Your task to perform on an android device: clear all cookies in the chrome app Image 0: 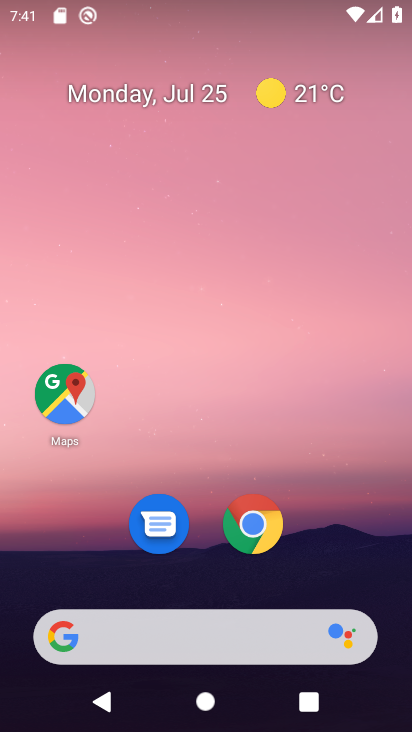
Step 0: click (253, 536)
Your task to perform on an android device: clear all cookies in the chrome app Image 1: 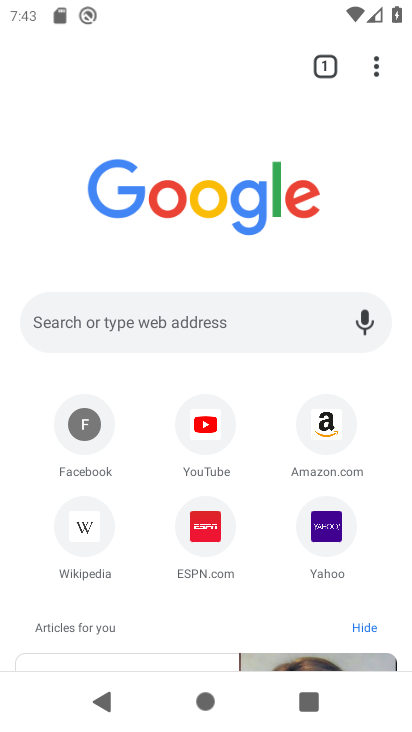
Step 1: click (374, 74)
Your task to perform on an android device: clear all cookies in the chrome app Image 2: 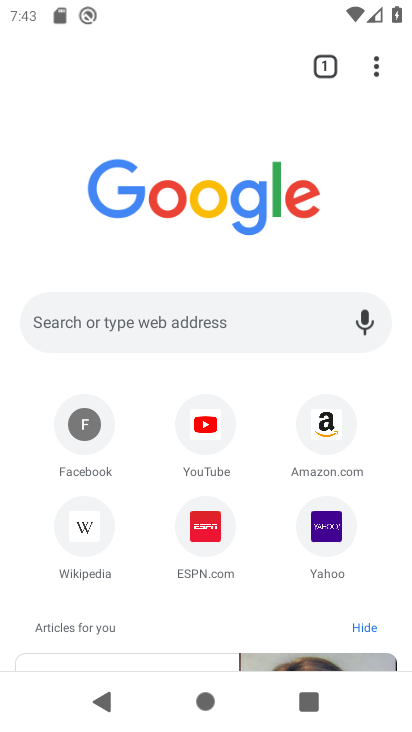
Step 2: click (377, 71)
Your task to perform on an android device: clear all cookies in the chrome app Image 3: 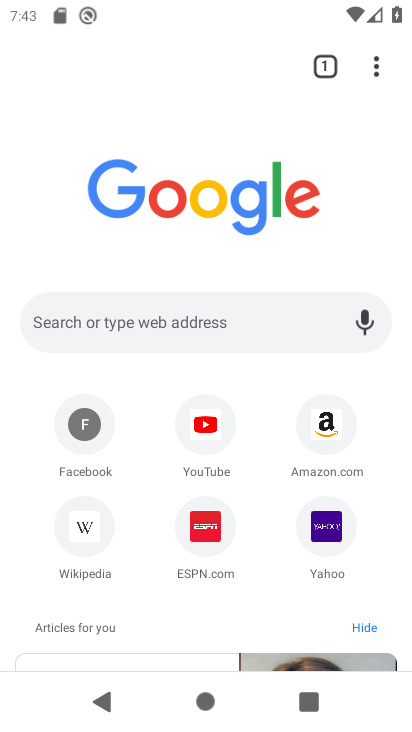
Step 3: drag from (374, 72) to (205, 563)
Your task to perform on an android device: clear all cookies in the chrome app Image 4: 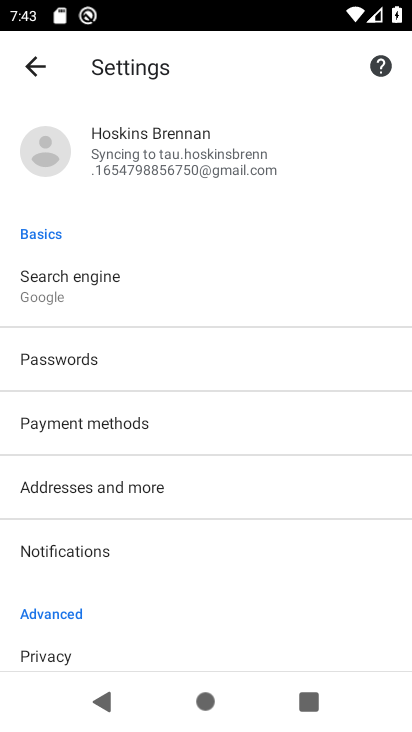
Step 4: click (52, 654)
Your task to perform on an android device: clear all cookies in the chrome app Image 5: 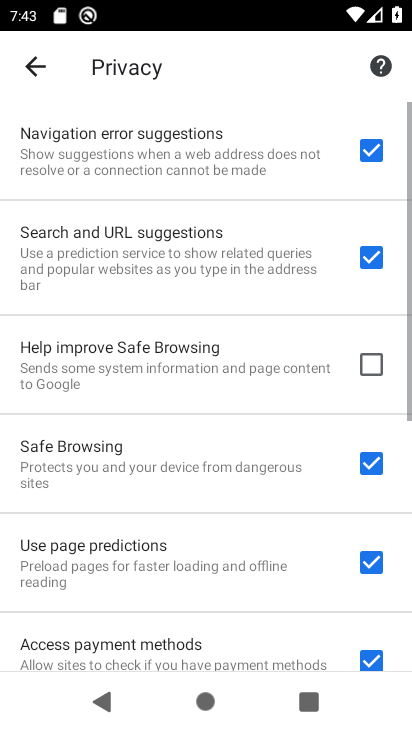
Step 5: drag from (186, 573) to (332, 166)
Your task to perform on an android device: clear all cookies in the chrome app Image 6: 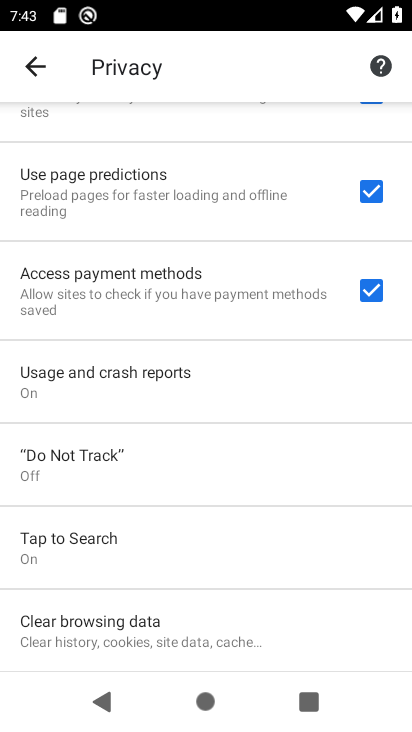
Step 6: drag from (188, 614) to (319, 249)
Your task to perform on an android device: clear all cookies in the chrome app Image 7: 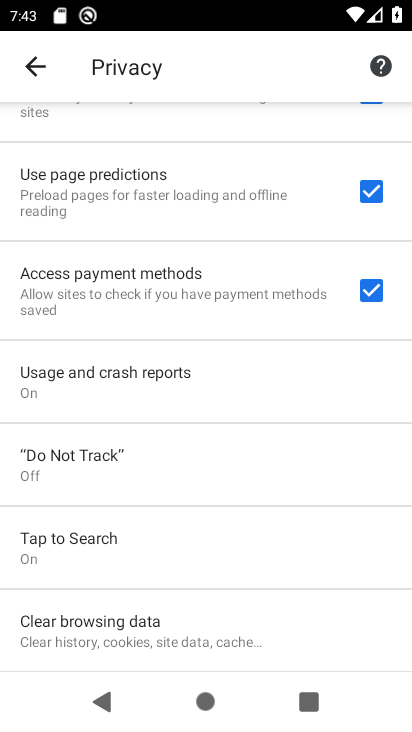
Step 7: click (120, 637)
Your task to perform on an android device: clear all cookies in the chrome app Image 8: 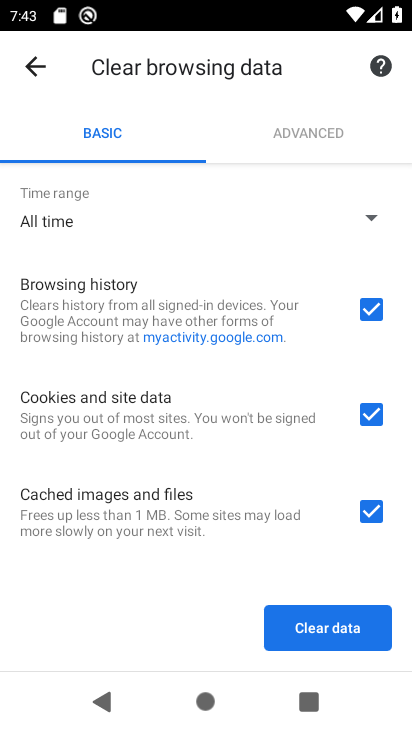
Step 8: click (374, 308)
Your task to perform on an android device: clear all cookies in the chrome app Image 9: 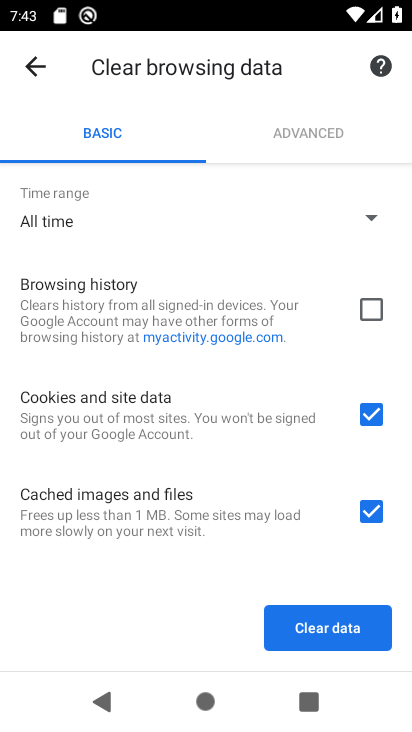
Step 9: click (364, 519)
Your task to perform on an android device: clear all cookies in the chrome app Image 10: 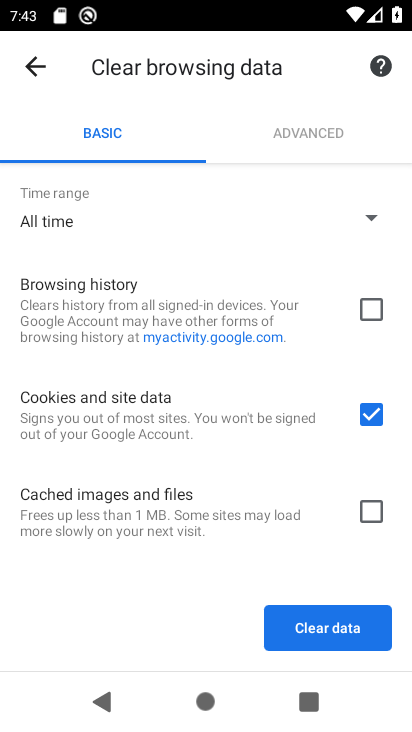
Step 10: click (309, 623)
Your task to perform on an android device: clear all cookies in the chrome app Image 11: 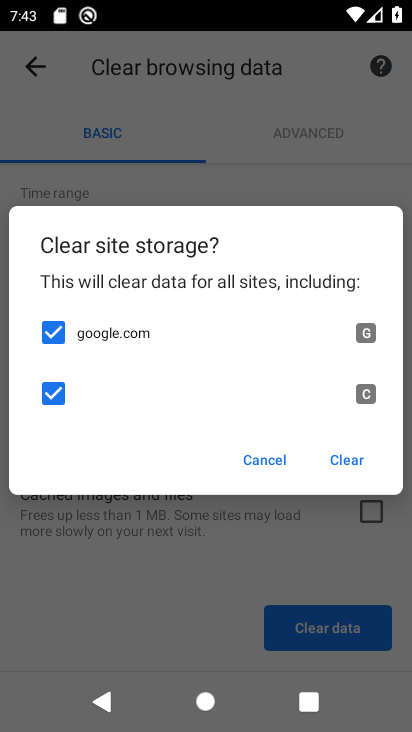
Step 11: click (348, 459)
Your task to perform on an android device: clear all cookies in the chrome app Image 12: 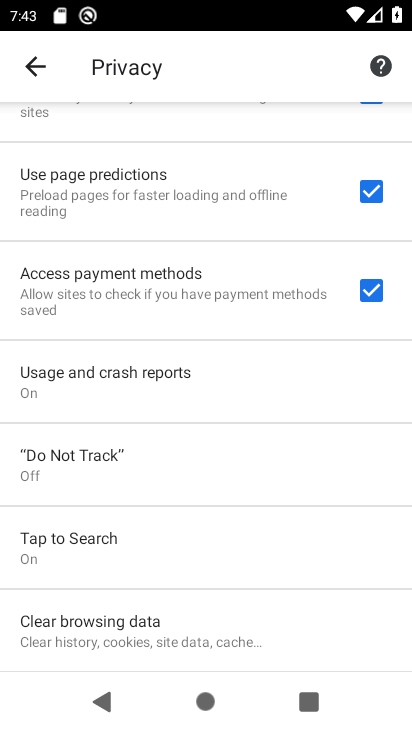
Step 12: task complete